Your task to perform on an android device: Do I have any events tomorrow? Image 0: 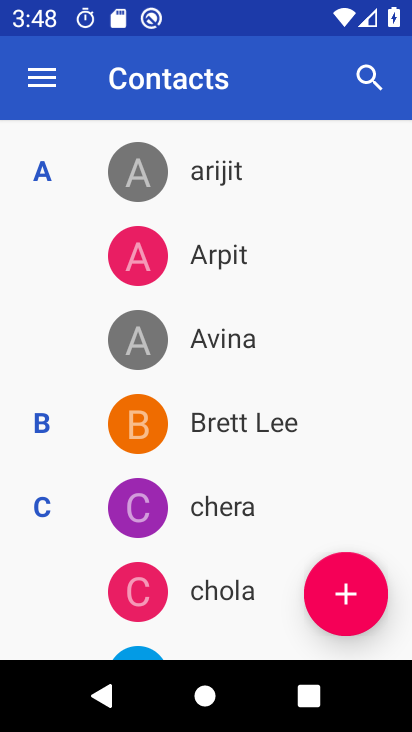
Step 0: press home button
Your task to perform on an android device: Do I have any events tomorrow? Image 1: 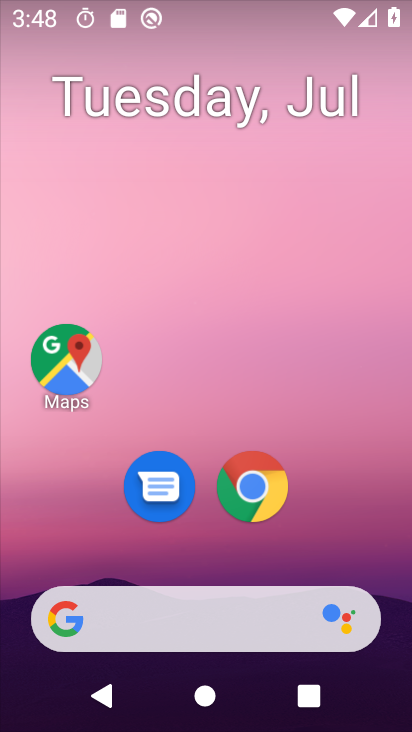
Step 1: drag from (340, 522) to (344, 43)
Your task to perform on an android device: Do I have any events tomorrow? Image 2: 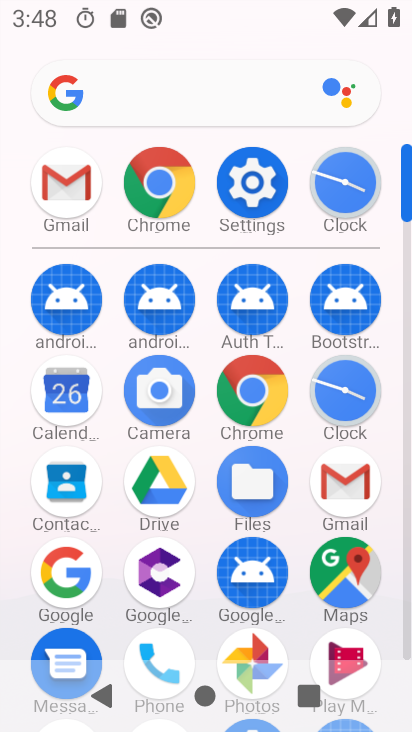
Step 2: click (68, 382)
Your task to perform on an android device: Do I have any events tomorrow? Image 3: 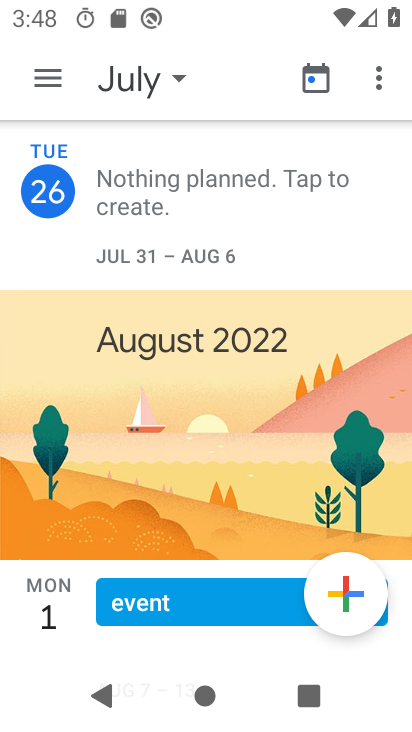
Step 3: click (180, 83)
Your task to perform on an android device: Do I have any events tomorrow? Image 4: 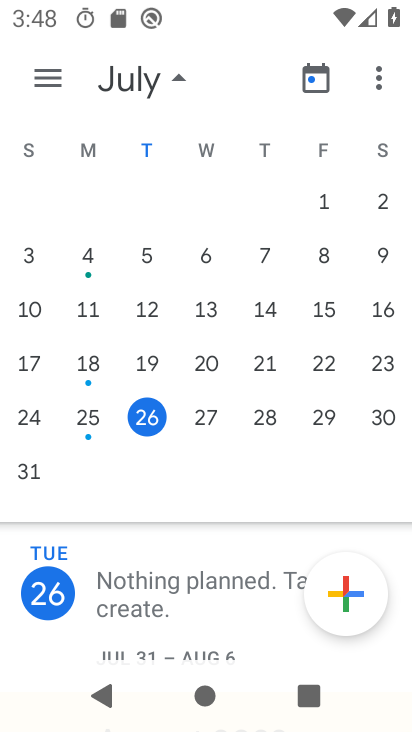
Step 4: click (207, 415)
Your task to perform on an android device: Do I have any events tomorrow? Image 5: 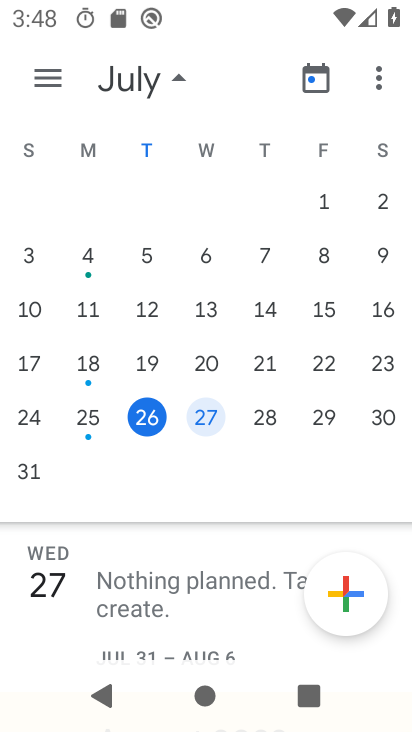
Step 5: task complete